Your task to perform on an android device: Open Chrome and go to settings Image 0: 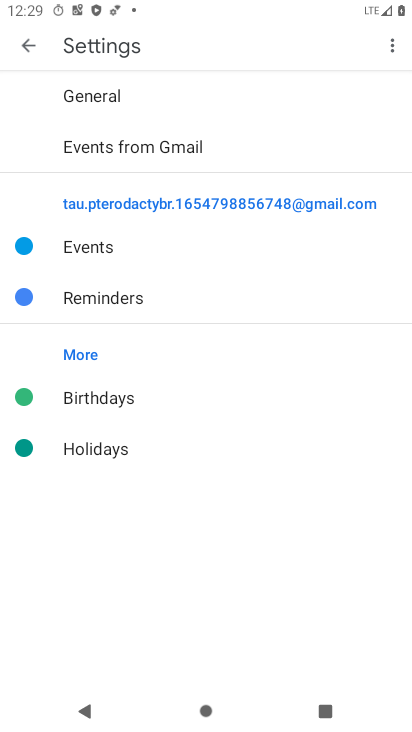
Step 0: press home button
Your task to perform on an android device: Open Chrome and go to settings Image 1: 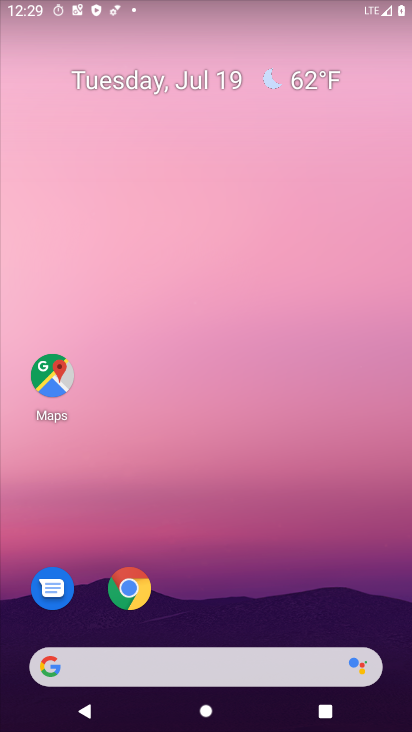
Step 1: click (136, 584)
Your task to perform on an android device: Open Chrome and go to settings Image 2: 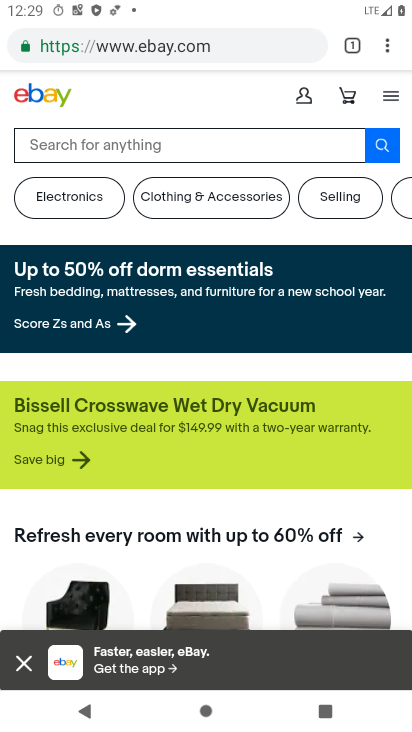
Step 2: click (388, 49)
Your task to perform on an android device: Open Chrome and go to settings Image 3: 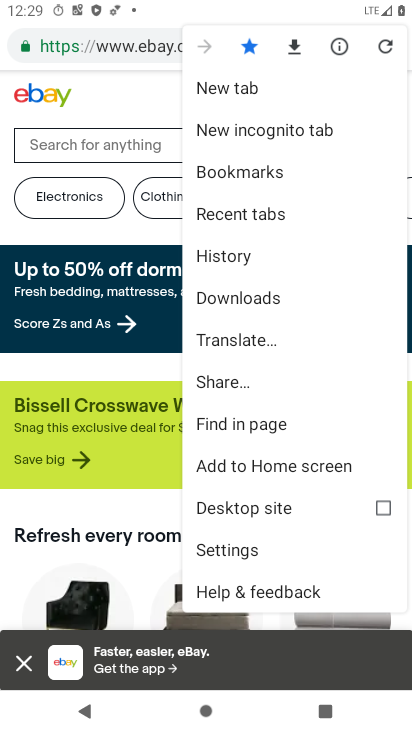
Step 3: click (259, 554)
Your task to perform on an android device: Open Chrome and go to settings Image 4: 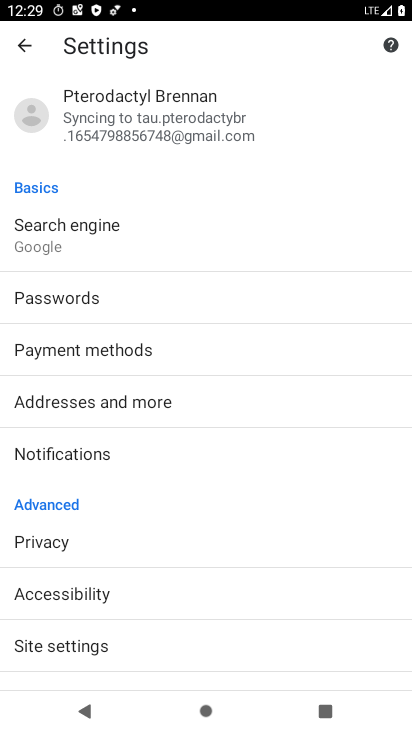
Step 4: task complete